Your task to perform on an android device: What's on my calendar today? Image 0: 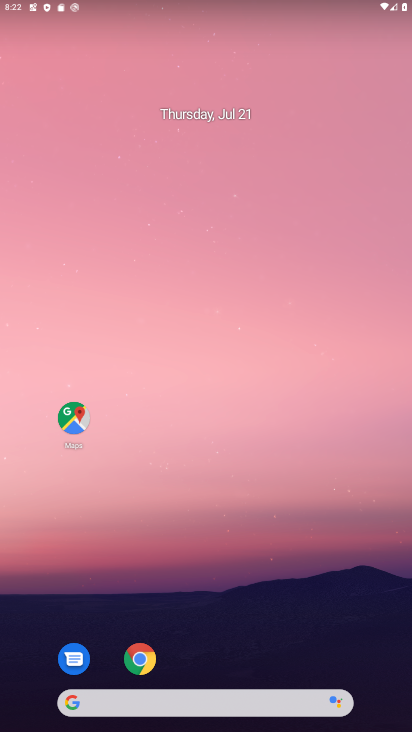
Step 0: drag from (228, 671) to (282, 60)
Your task to perform on an android device: What's on my calendar today? Image 1: 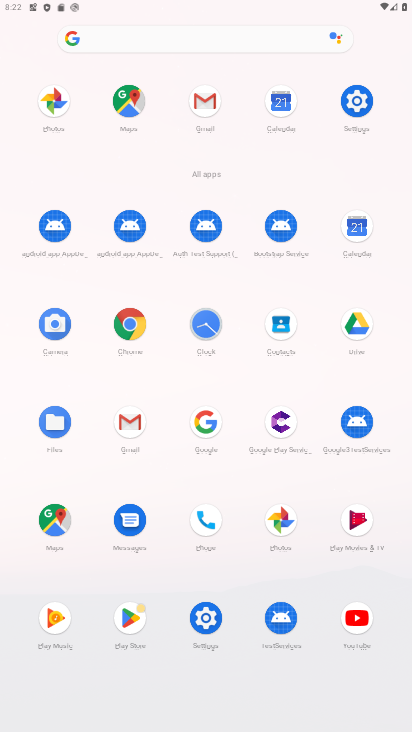
Step 1: click (359, 220)
Your task to perform on an android device: What's on my calendar today? Image 2: 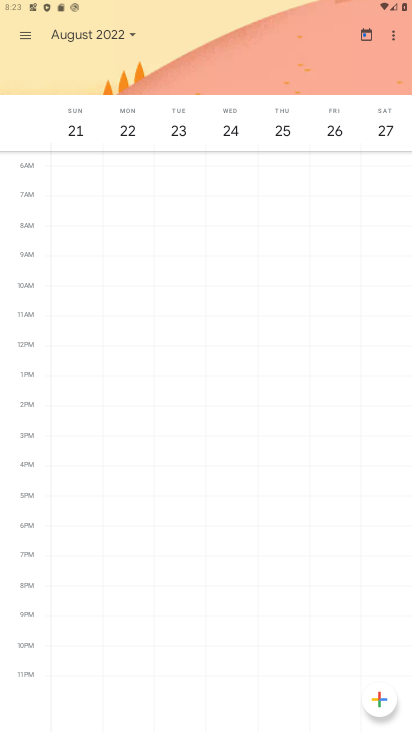
Step 2: click (121, 35)
Your task to perform on an android device: What's on my calendar today? Image 3: 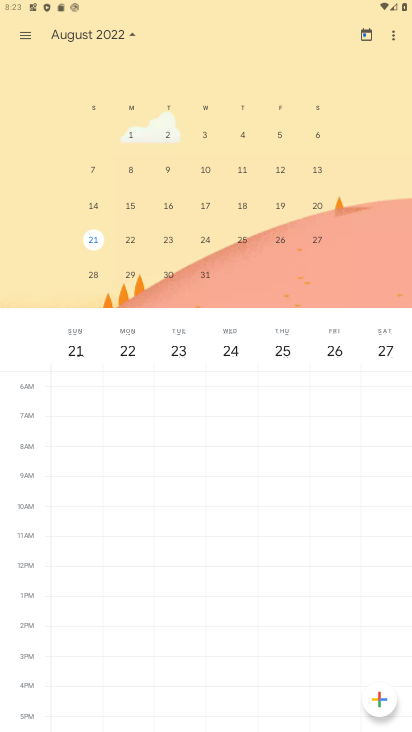
Step 3: drag from (101, 202) to (411, 191)
Your task to perform on an android device: What's on my calendar today? Image 4: 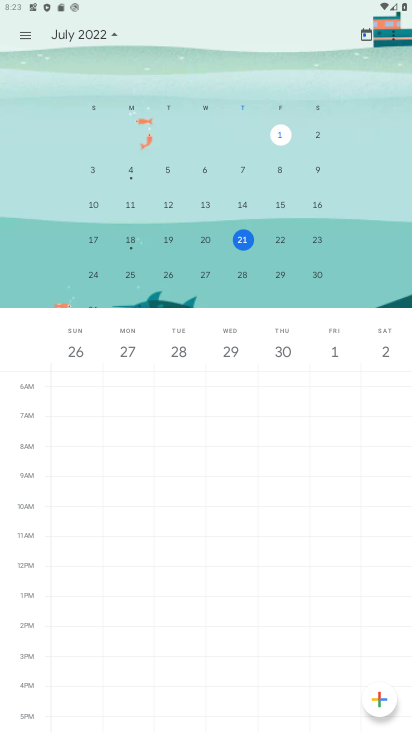
Step 4: click (240, 239)
Your task to perform on an android device: What's on my calendar today? Image 5: 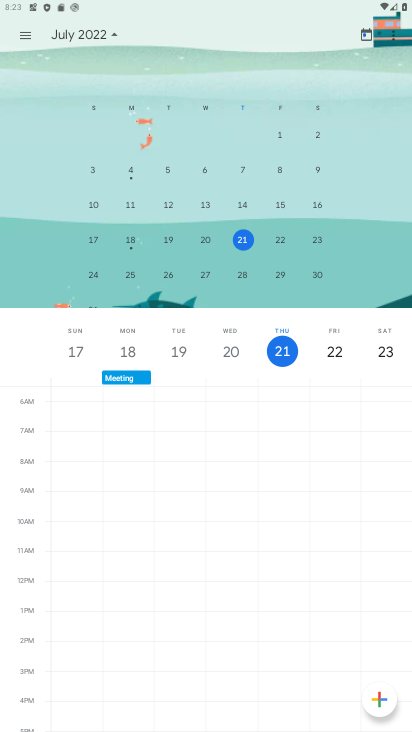
Step 5: click (285, 349)
Your task to perform on an android device: What's on my calendar today? Image 6: 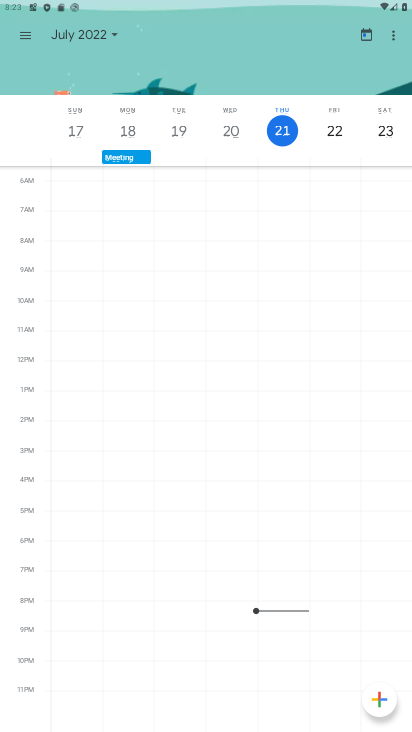
Step 6: click (276, 126)
Your task to perform on an android device: What's on my calendar today? Image 7: 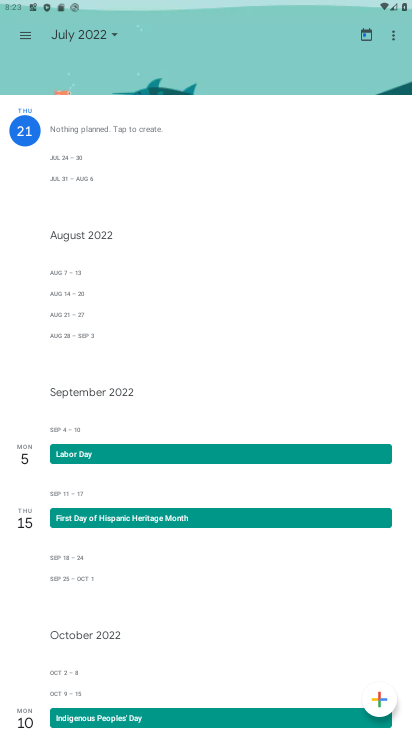
Step 7: click (23, 132)
Your task to perform on an android device: What's on my calendar today? Image 8: 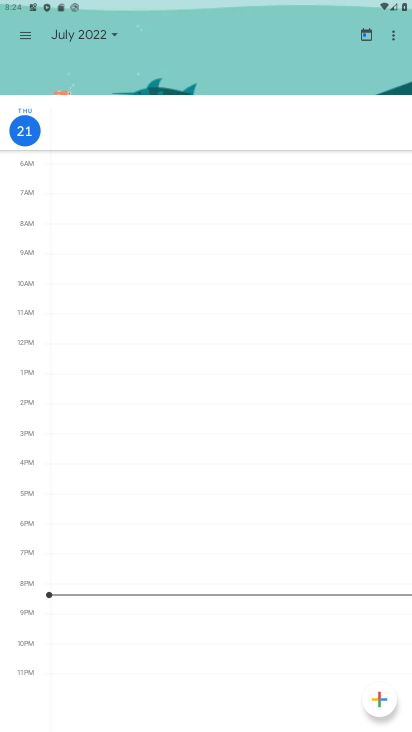
Step 8: task complete